Your task to perform on an android device: Toggle the flashlight Image 0: 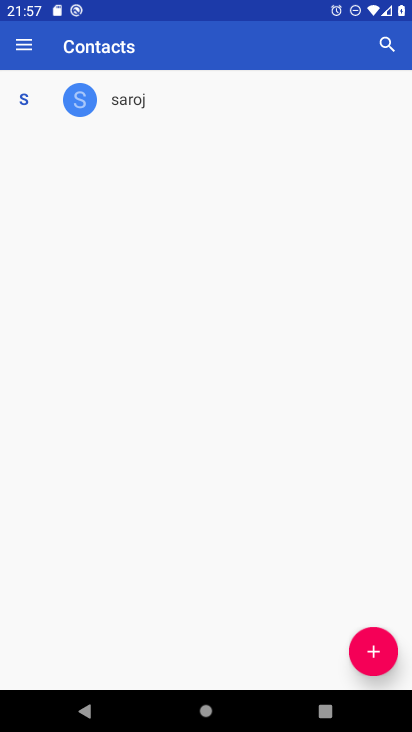
Step 0: press home button
Your task to perform on an android device: Toggle the flashlight Image 1: 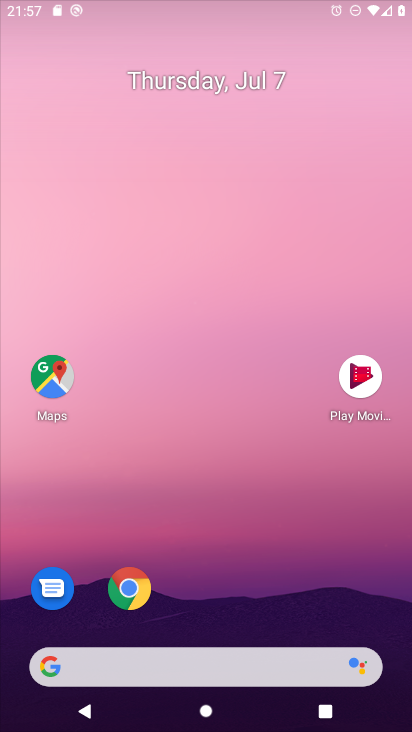
Step 1: drag from (197, 596) to (184, 272)
Your task to perform on an android device: Toggle the flashlight Image 2: 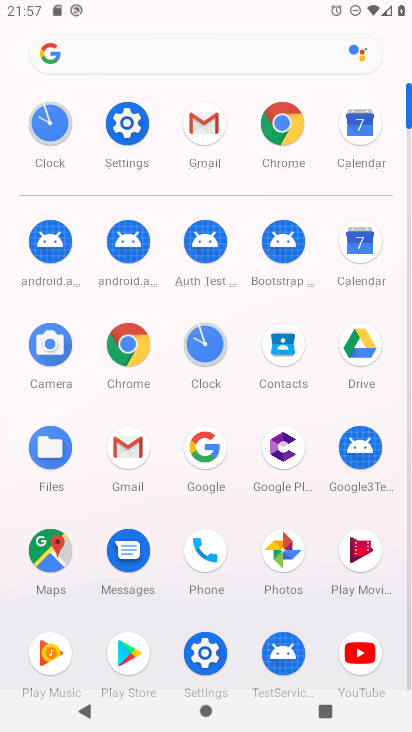
Step 2: click (125, 117)
Your task to perform on an android device: Toggle the flashlight Image 3: 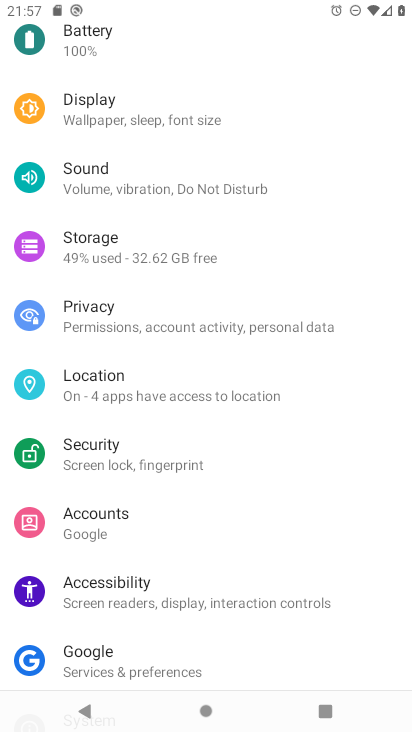
Step 3: task complete